Your task to perform on an android device: toggle wifi Image 0: 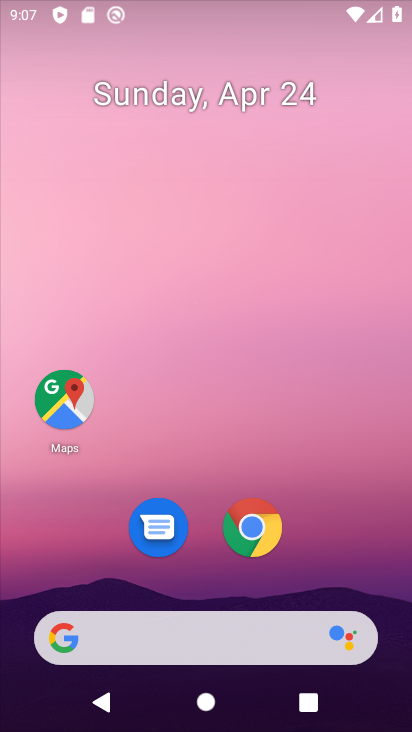
Step 0: drag from (243, 650) to (247, 7)
Your task to perform on an android device: toggle wifi Image 1: 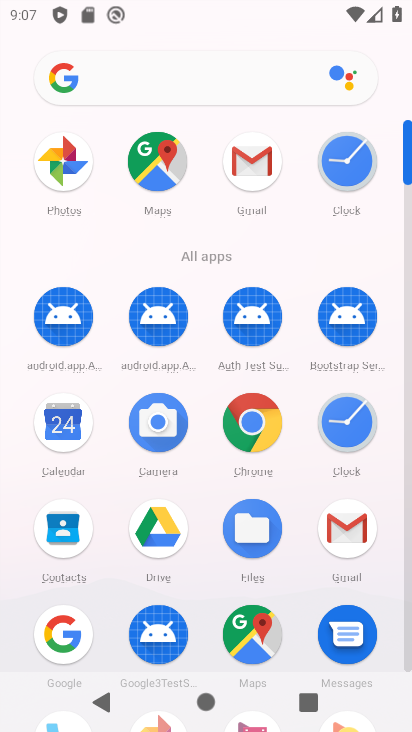
Step 1: click (248, 422)
Your task to perform on an android device: toggle wifi Image 2: 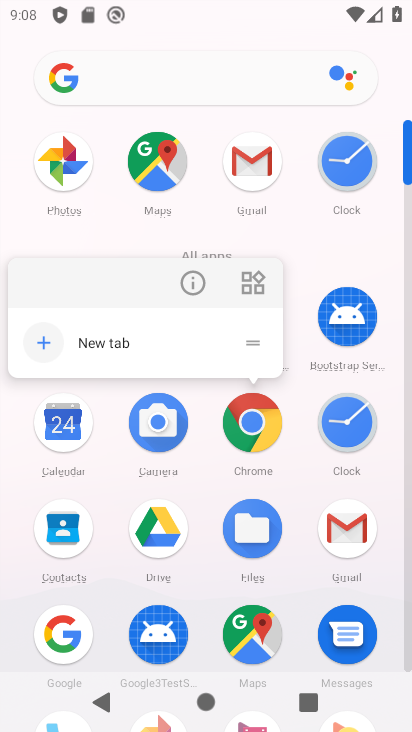
Step 2: click (310, 252)
Your task to perform on an android device: toggle wifi Image 3: 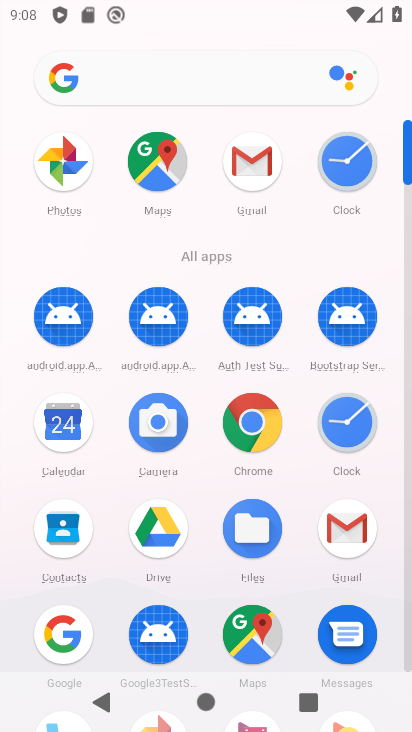
Step 3: drag from (211, 643) to (205, 212)
Your task to perform on an android device: toggle wifi Image 4: 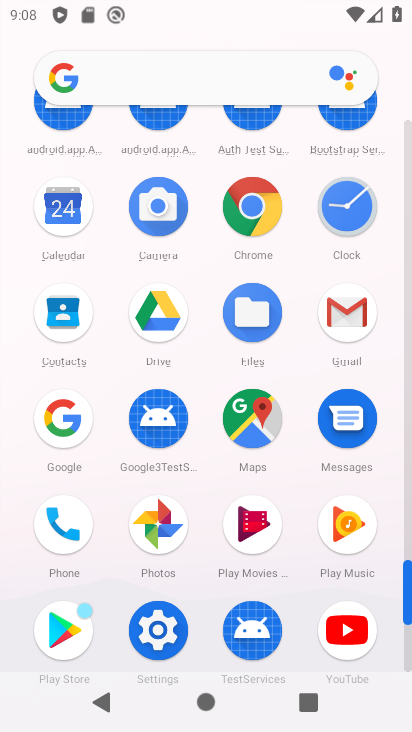
Step 4: click (162, 631)
Your task to perform on an android device: toggle wifi Image 5: 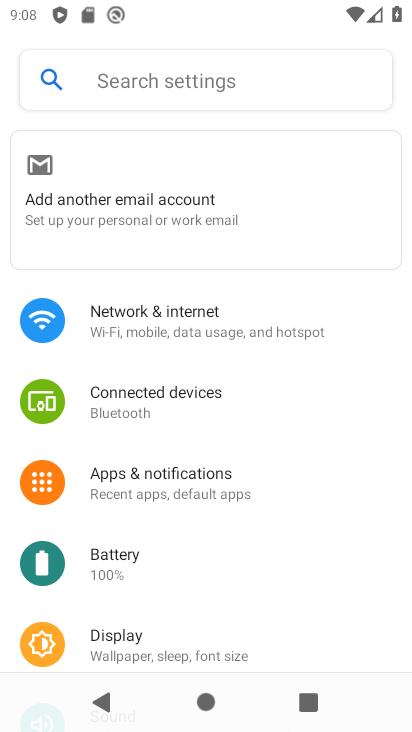
Step 5: click (169, 326)
Your task to perform on an android device: toggle wifi Image 6: 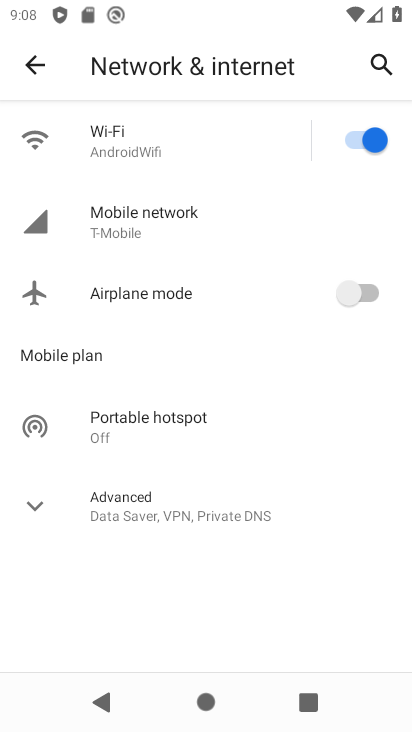
Step 6: click (348, 139)
Your task to perform on an android device: toggle wifi Image 7: 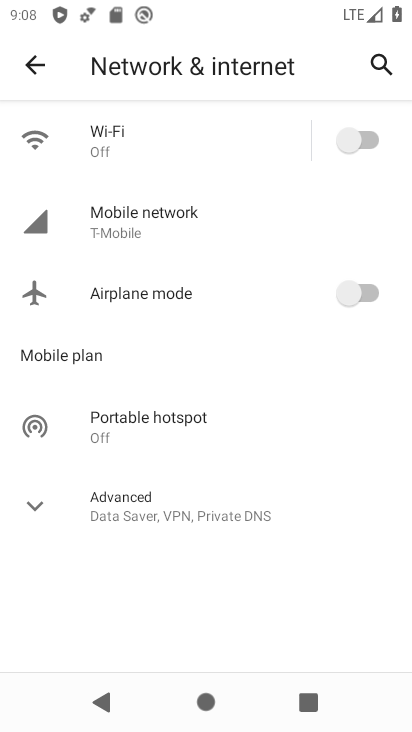
Step 7: task complete